Your task to perform on an android device: see sites visited before in the chrome app Image 0: 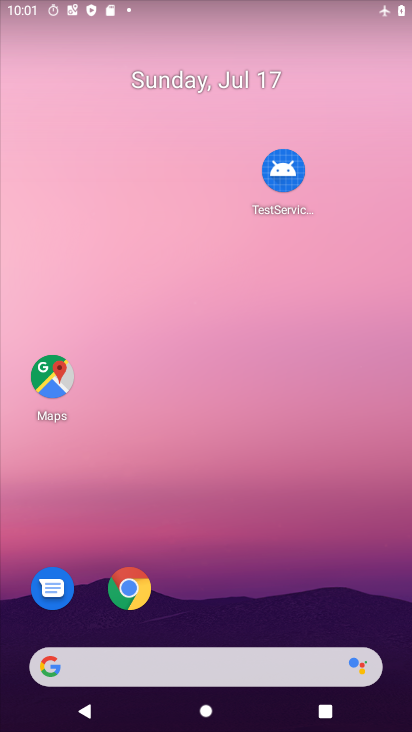
Step 0: drag from (214, 587) to (287, 98)
Your task to perform on an android device: see sites visited before in the chrome app Image 1: 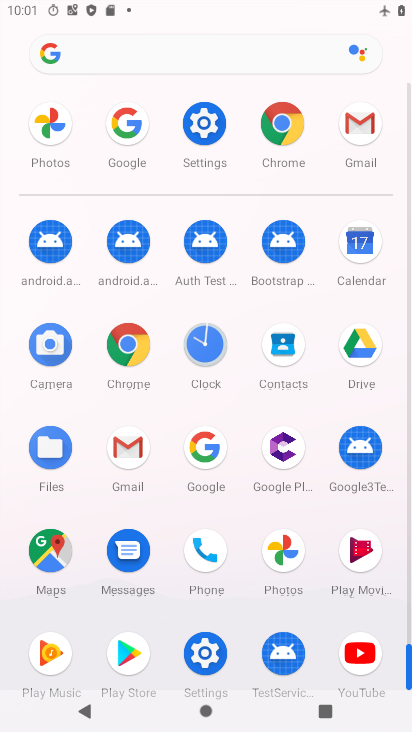
Step 1: click (283, 129)
Your task to perform on an android device: see sites visited before in the chrome app Image 2: 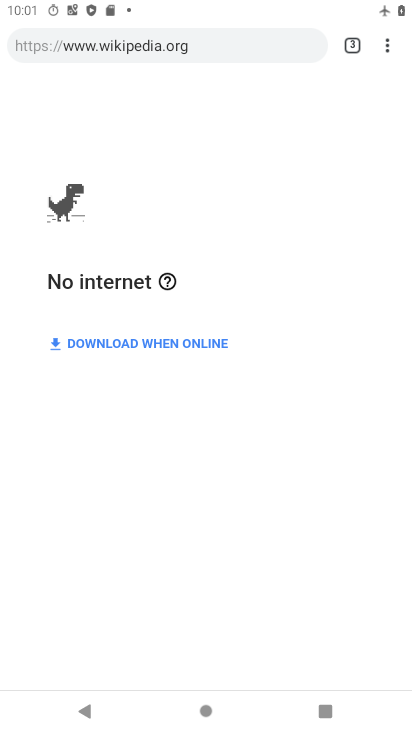
Step 2: click (391, 46)
Your task to perform on an android device: see sites visited before in the chrome app Image 3: 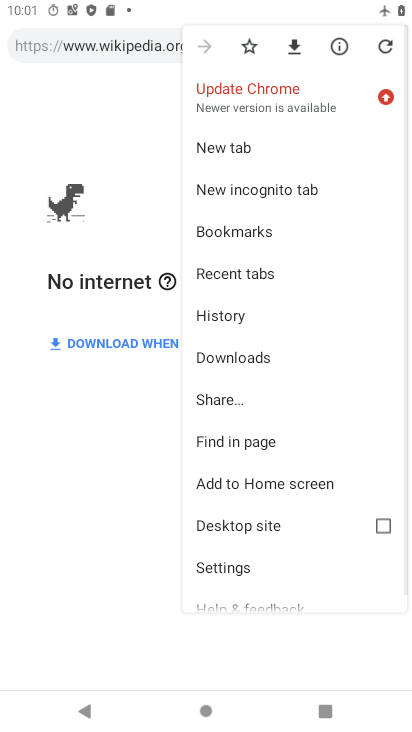
Step 3: drag from (267, 465) to (308, 186)
Your task to perform on an android device: see sites visited before in the chrome app Image 4: 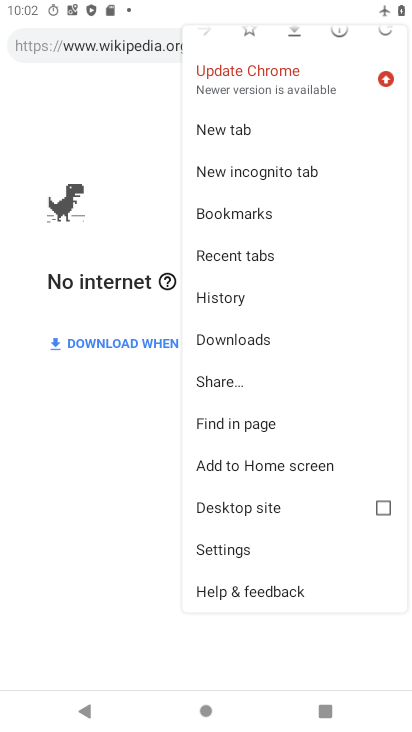
Step 4: click (249, 299)
Your task to perform on an android device: see sites visited before in the chrome app Image 5: 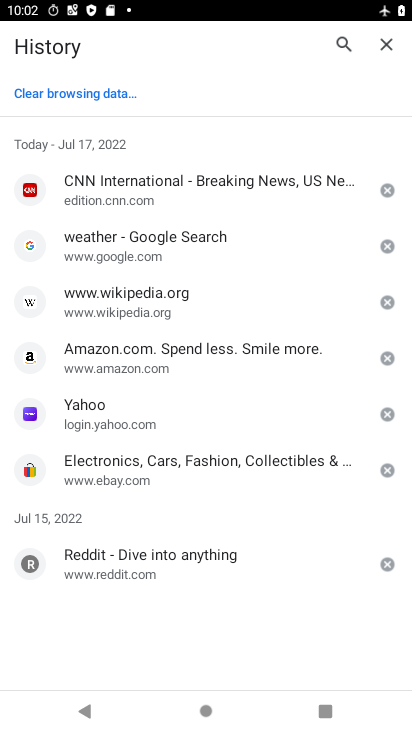
Step 5: task complete